Your task to perform on an android device: What's the weather today? Image 0: 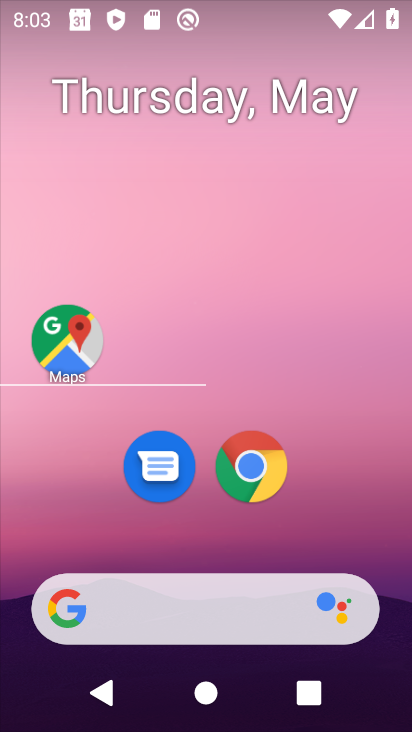
Step 0: click (319, 34)
Your task to perform on an android device: What's the weather today? Image 1: 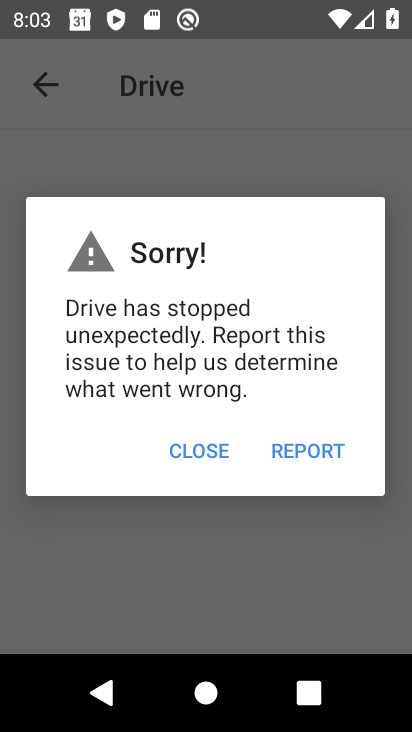
Step 1: press home button
Your task to perform on an android device: What's the weather today? Image 2: 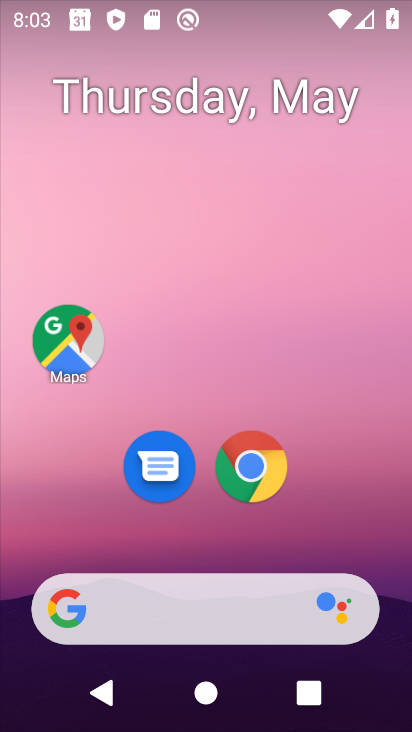
Step 2: click (247, 466)
Your task to perform on an android device: What's the weather today? Image 3: 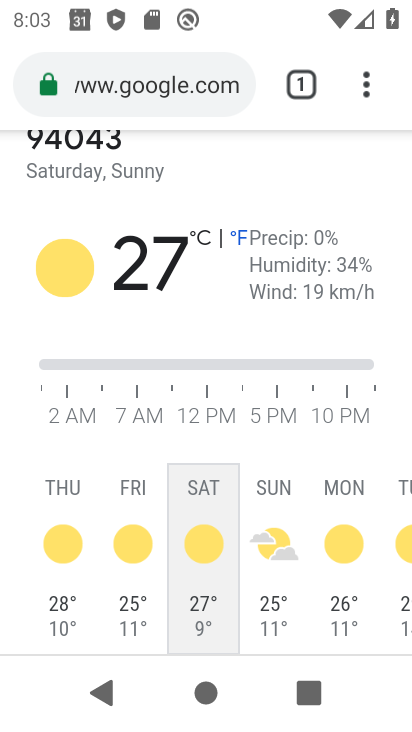
Step 3: click (136, 520)
Your task to perform on an android device: What's the weather today? Image 4: 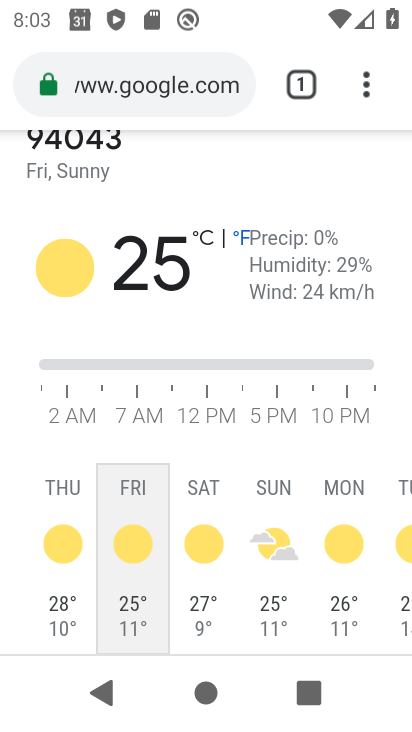
Step 4: task complete